Your task to perform on an android device: Open calendar and show me the second week of next month Image 0: 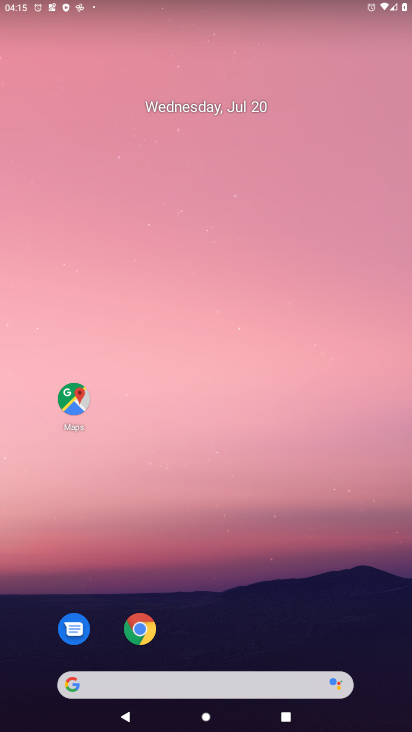
Step 0: drag from (382, 666) to (325, 75)
Your task to perform on an android device: Open calendar and show me the second week of next month Image 1: 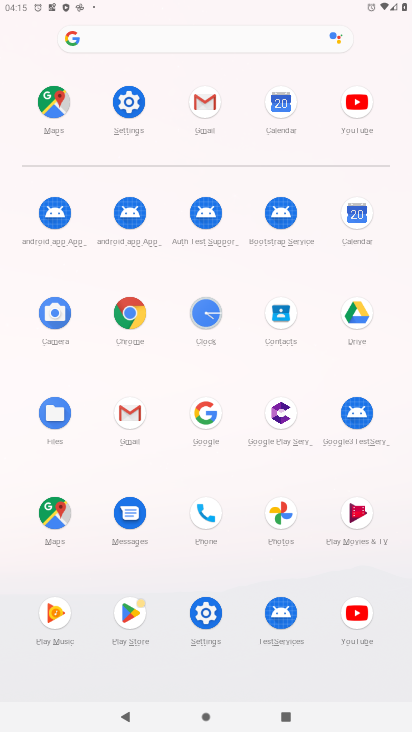
Step 1: click (127, 610)
Your task to perform on an android device: Open calendar and show me the second week of next month Image 2: 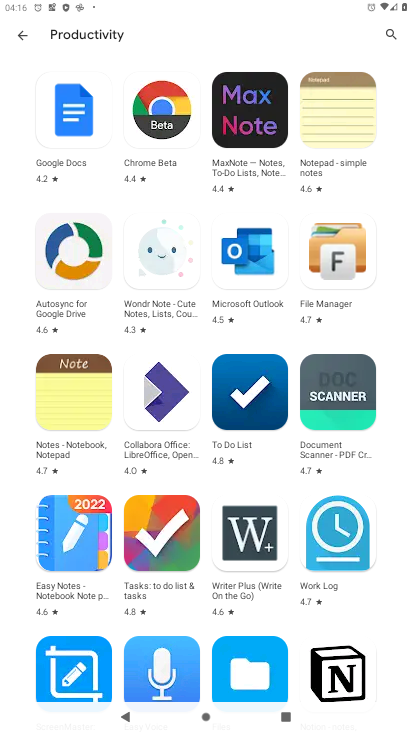
Step 2: press back button
Your task to perform on an android device: Open calendar and show me the second week of next month Image 3: 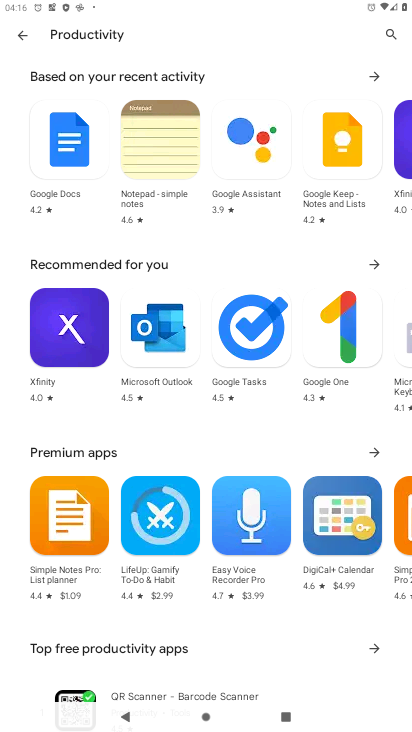
Step 3: press back button
Your task to perform on an android device: Open calendar and show me the second week of next month Image 4: 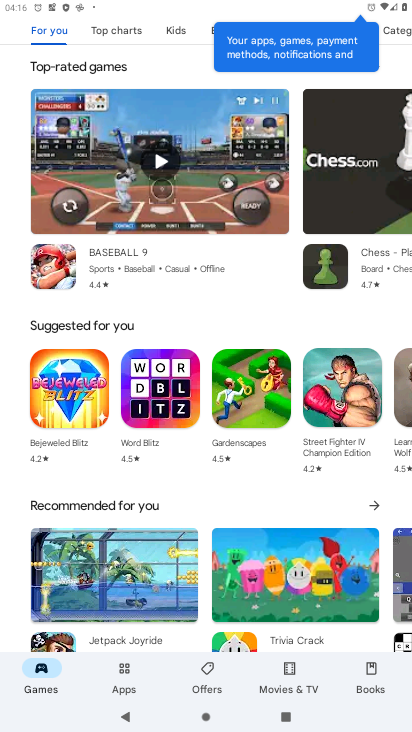
Step 4: press home button
Your task to perform on an android device: Open calendar and show me the second week of next month Image 5: 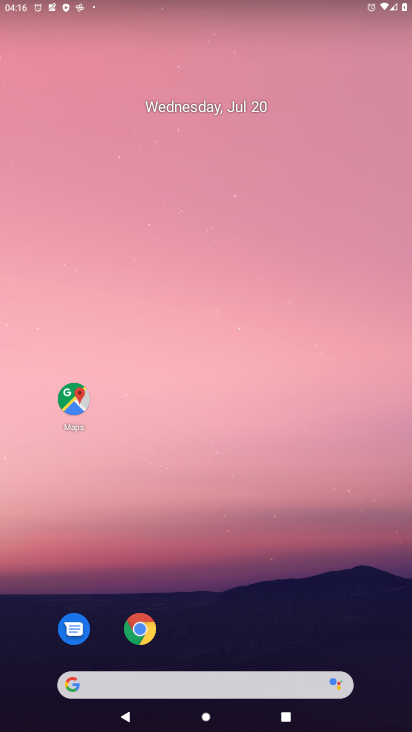
Step 5: drag from (373, 632) to (363, 81)
Your task to perform on an android device: Open calendar and show me the second week of next month Image 6: 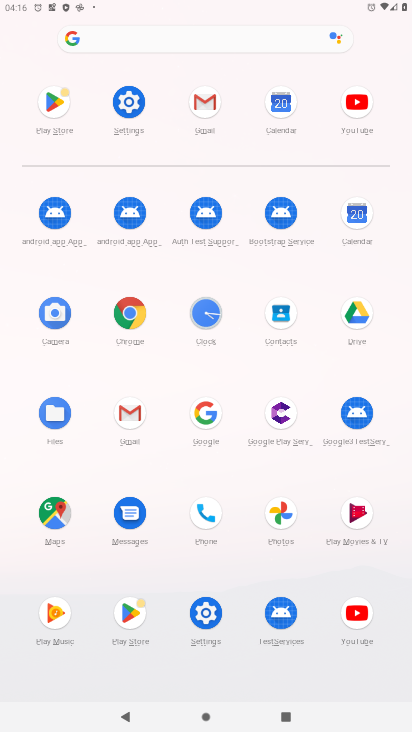
Step 6: click (355, 214)
Your task to perform on an android device: Open calendar and show me the second week of next month Image 7: 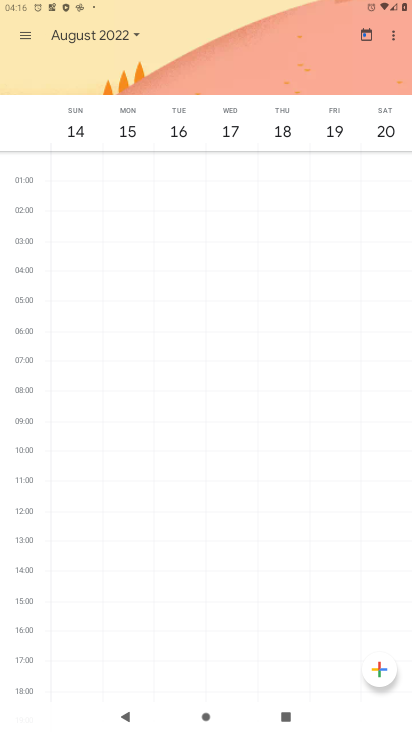
Step 7: click (135, 33)
Your task to perform on an android device: Open calendar and show me the second week of next month Image 8: 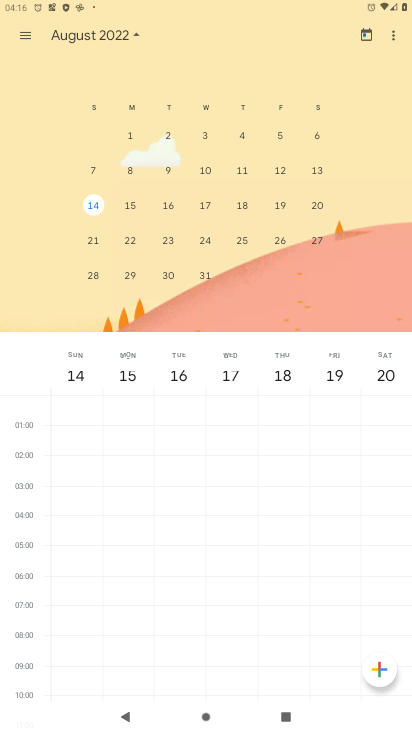
Step 8: task complete